Your task to perform on an android device: What is the news today? Image 0: 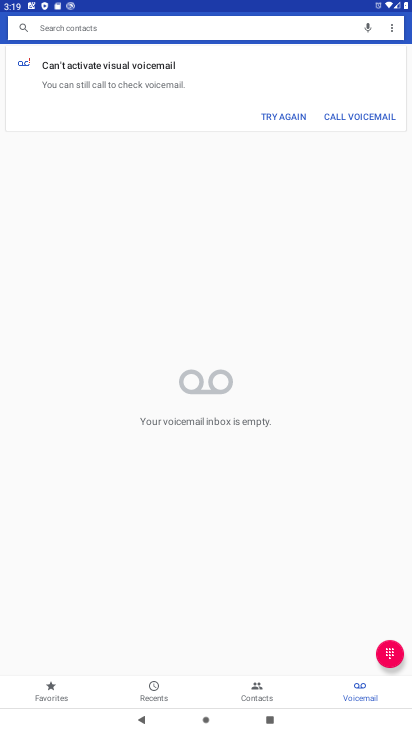
Step 0: press home button
Your task to perform on an android device: What is the news today? Image 1: 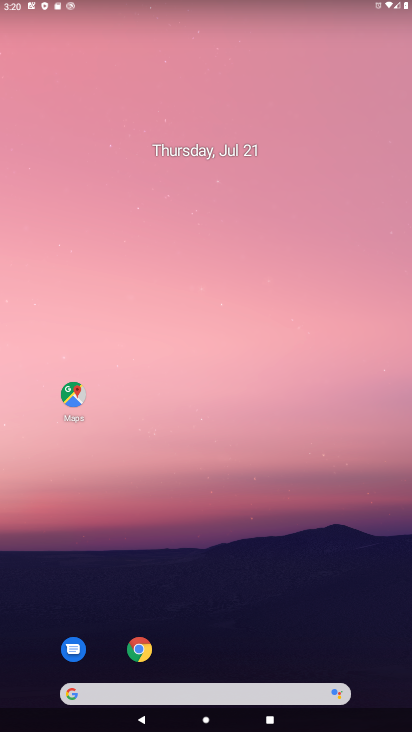
Step 1: click (190, 692)
Your task to perform on an android device: What is the news today? Image 2: 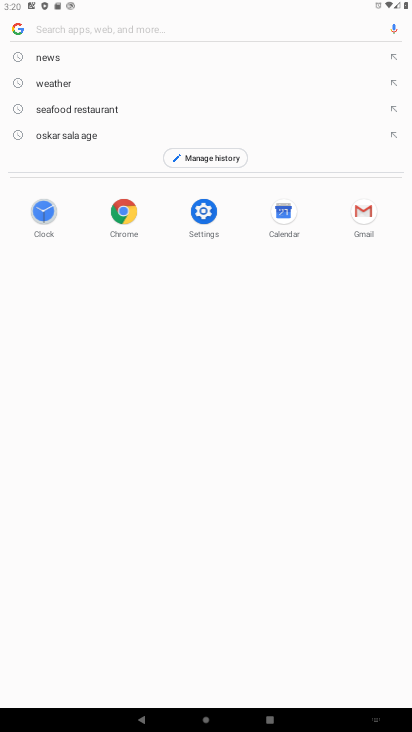
Step 2: click (71, 67)
Your task to perform on an android device: What is the news today? Image 3: 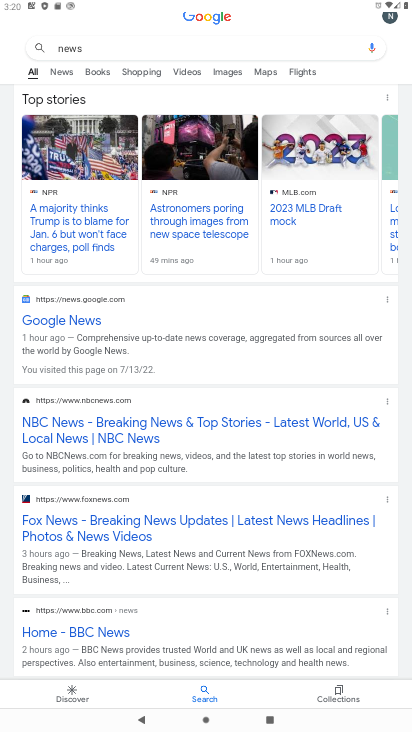
Step 3: task complete